Your task to perform on an android device: Go to Google Image 0: 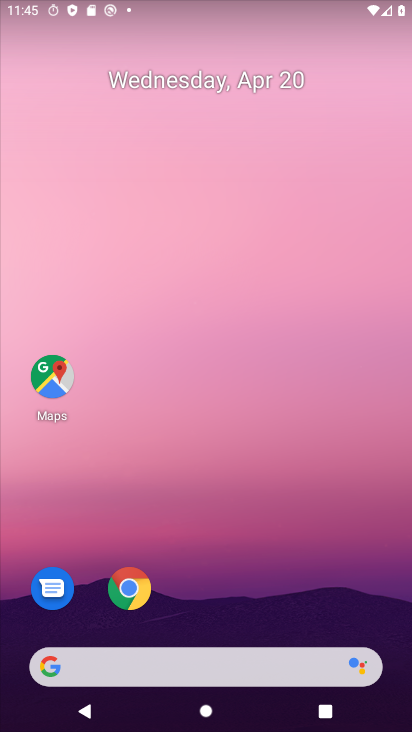
Step 0: press home button
Your task to perform on an android device: Go to Google Image 1: 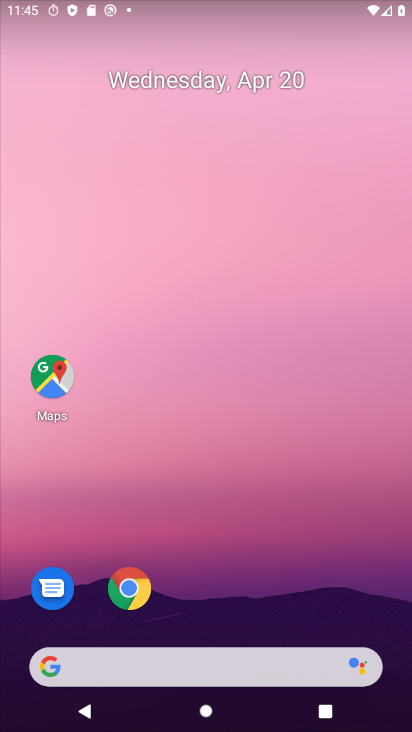
Step 1: drag from (209, 563) to (233, 0)
Your task to perform on an android device: Go to Google Image 2: 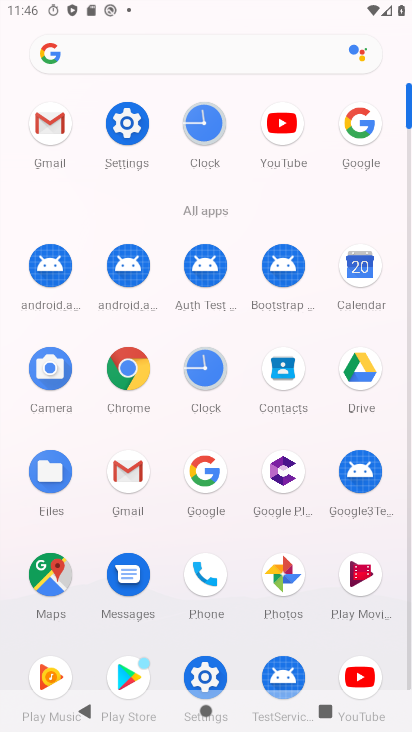
Step 2: click (360, 114)
Your task to perform on an android device: Go to Google Image 3: 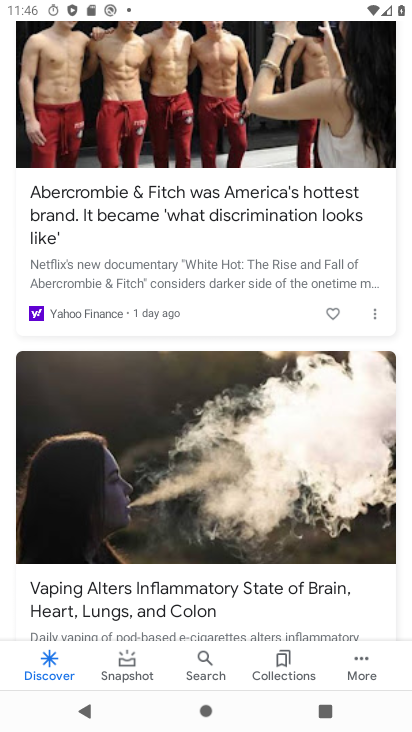
Step 3: task complete